Your task to perform on an android device: Check the news Image 0: 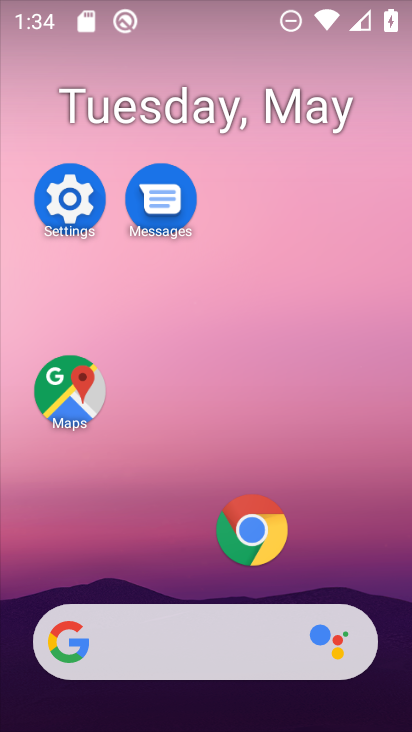
Step 0: drag from (177, 559) to (238, 231)
Your task to perform on an android device: Check the news Image 1: 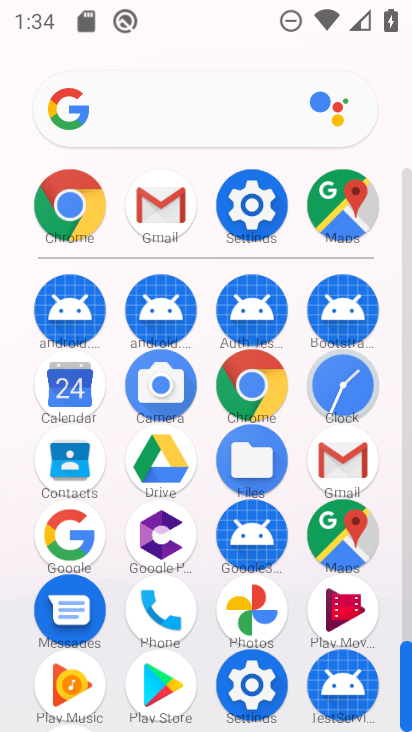
Step 1: click (96, 544)
Your task to perform on an android device: Check the news Image 2: 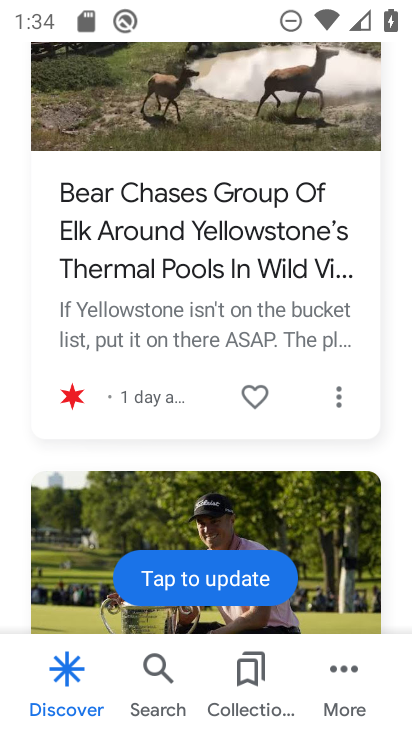
Step 2: task complete